Your task to perform on an android device: What is the recent news? Image 0: 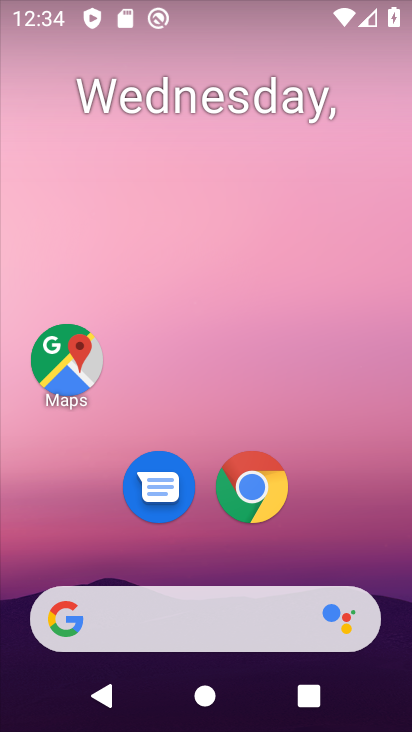
Step 0: drag from (187, 561) to (269, 241)
Your task to perform on an android device: What is the recent news? Image 1: 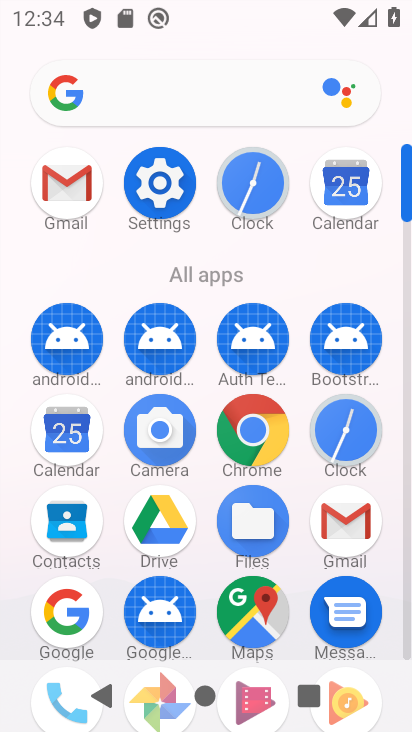
Step 1: click (70, 624)
Your task to perform on an android device: What is the recent news? Image 2: 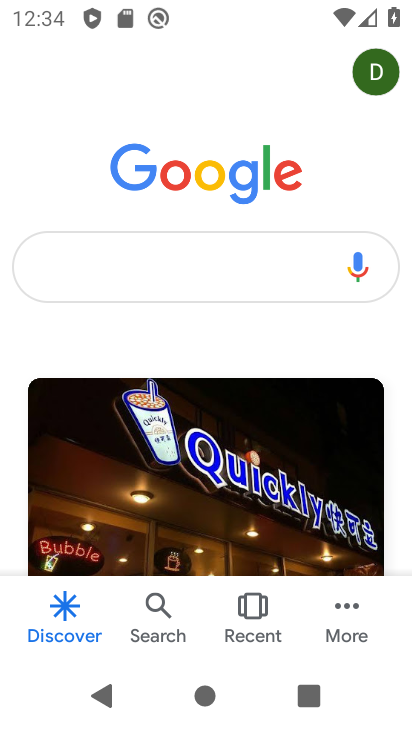
Step 2: click (192, 285)
Your task to perform on an android device: What is the recent news? Image 3: 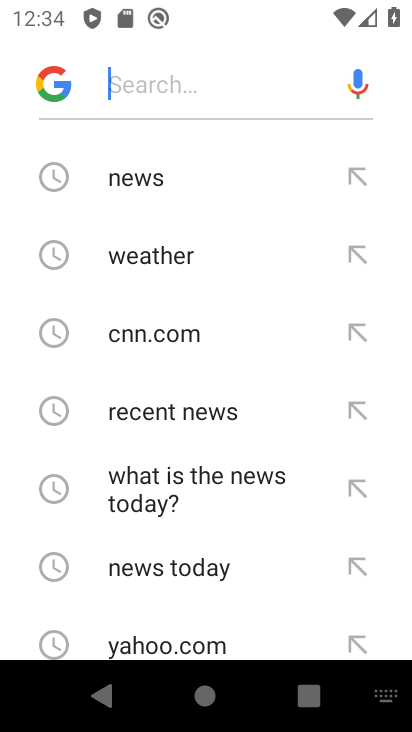
Step 3: click (193, 421)
Your task to perform on an android device: What is the recent news? Image 4: 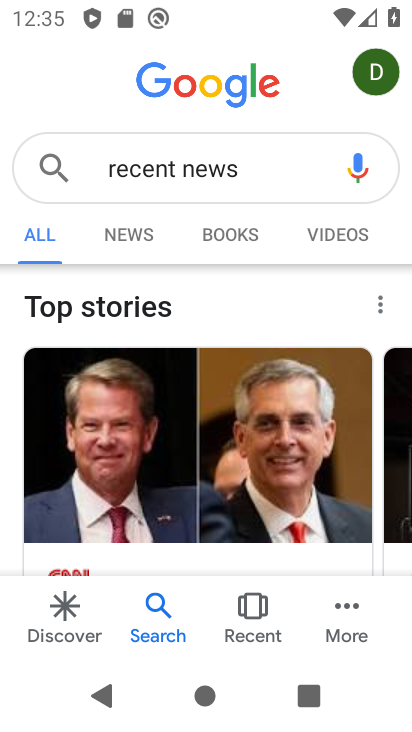
Step 4: task complete